Your task to perform on an android device: What's the weather going to be this weekend? Image 0: 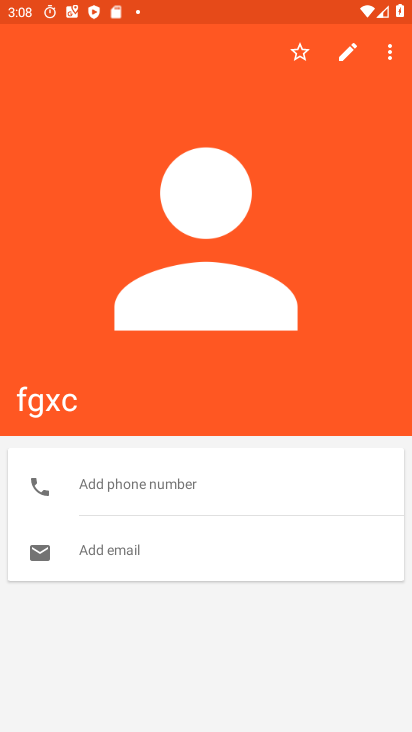
Step 0: press home button
Your task to perform on an android device: What's the weather going to be this weekend? Image 1: 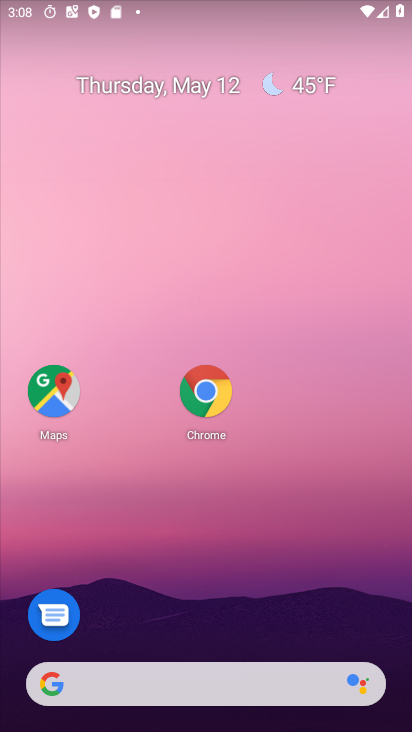
Step 1: drag from (214, 611) to (281, 57)
Your task to perform on an android device: What's the weather going to be this weekend? Image 2: 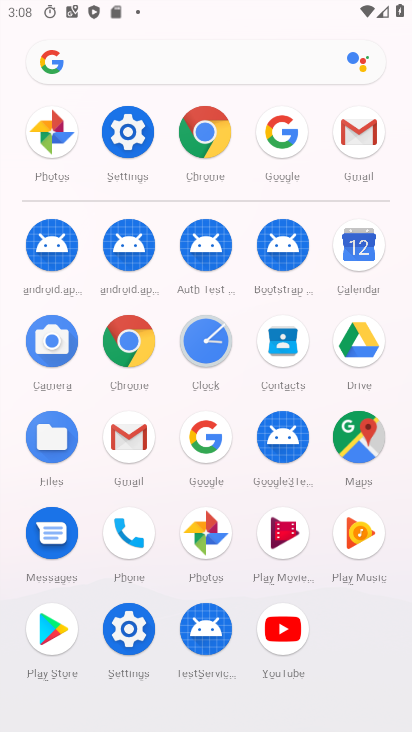
Step 2: click (282, 139)
Your task to perform on an android device: What's the weather going to be this weekend? Image 3: 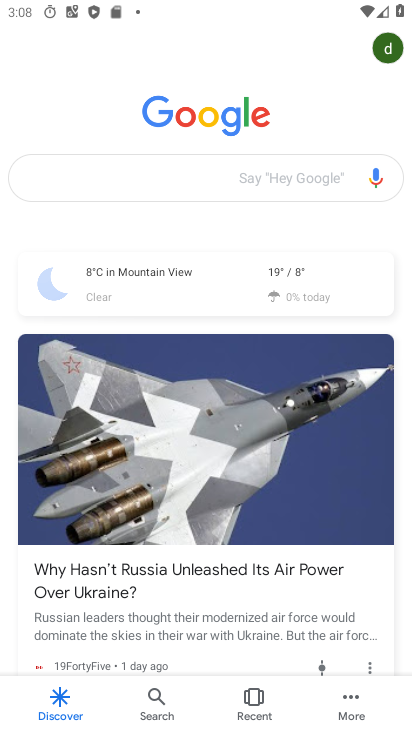
Step 3: click (189, 182)
Your task to perform on an android device: What's the weather going to be this weekend? Image 4: 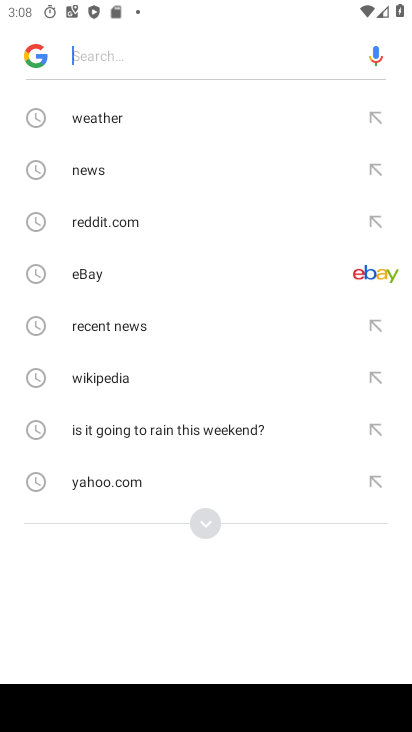
Step 4: type "weather going to be this weekend"
Your task to perform on an android device: What's the weather going to be this weekend? Image 5: 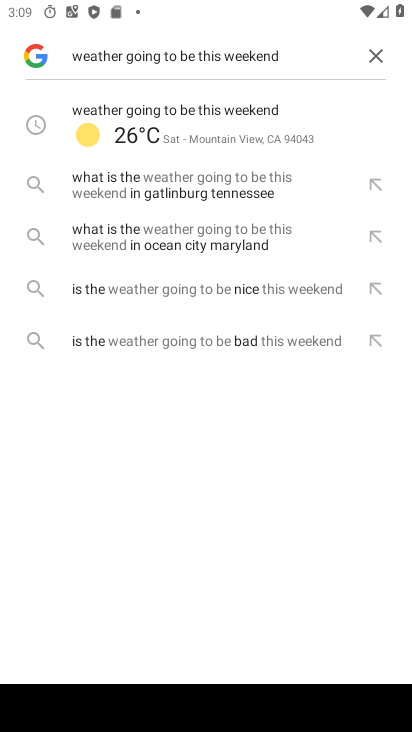
Step 5: click (168, 104)
Your task to perform on an android device: What's the weather going to be this weekend? Image 6: 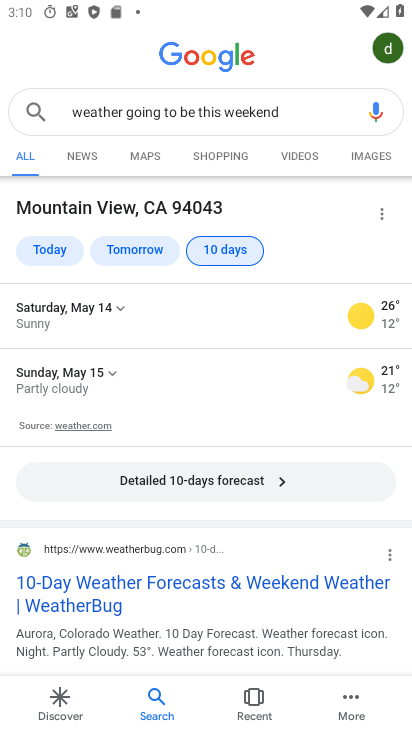
Step 6: task complete